Your task to perform on an android device: change timer sound Image 0: 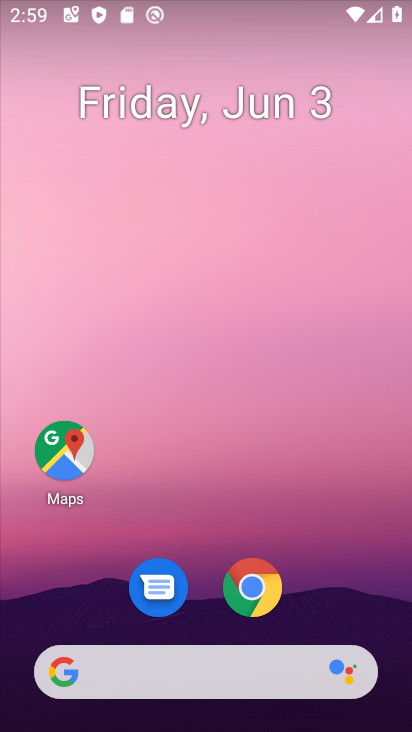
Step 0: drag from (238, 696) to (192, 13)
Your task to perform on an android device: change timer sound Image 1: 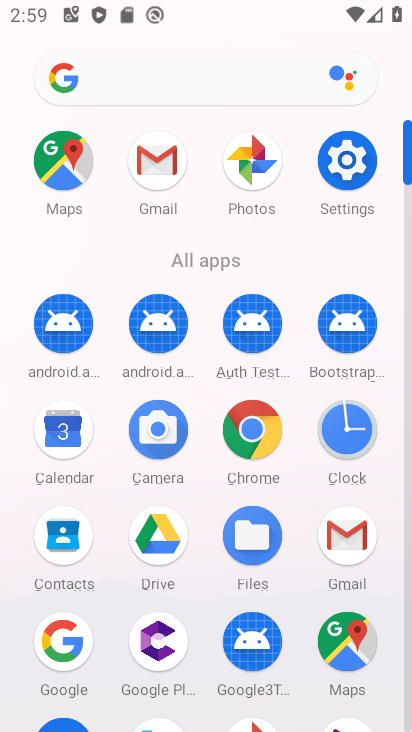
Step 1: click (344, 426)
Your task to perform on an android device: change timer sound Image 2: 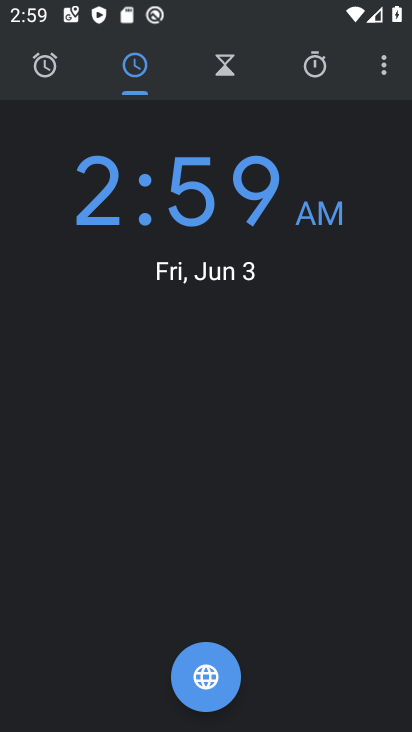
Step 2: click (384, 71)
Your task to perform on an android device: change timer sound Image 3: 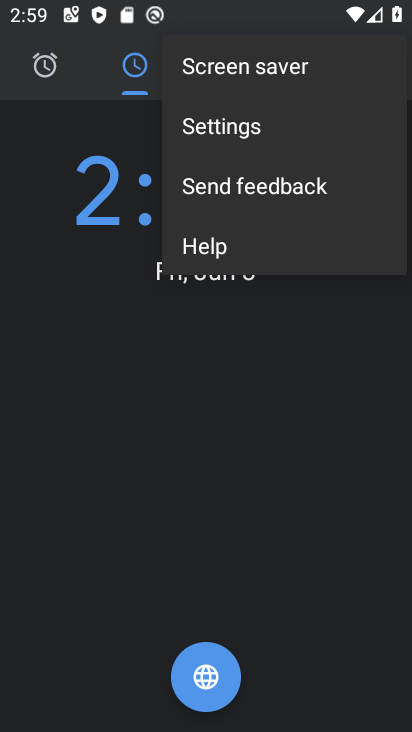
Step 3: click (221, 128)
Your task to perform on an android device: change timer sound Image 4: 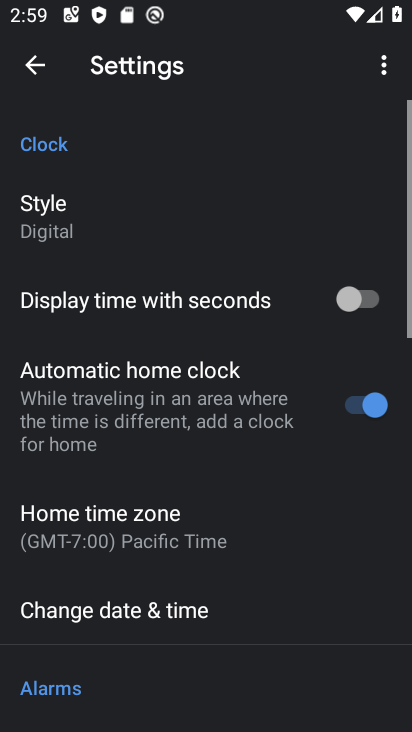
Step 4: drag from (167, 668) to (147, 315)
Your task to perform on an android device: change timer sound Image 5: 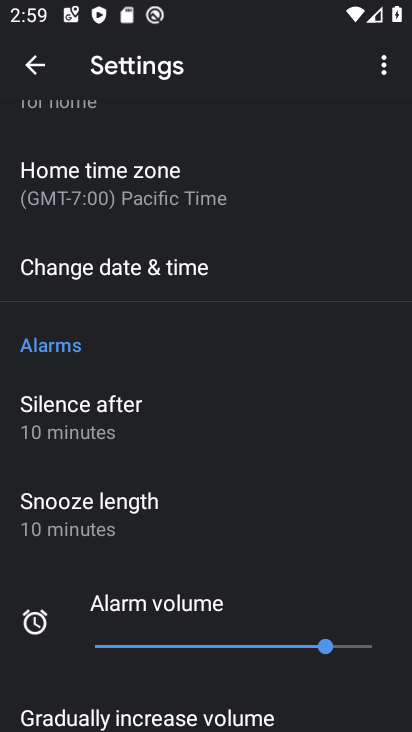
Step 5: drag from (158, 706) to (164, 237)
Your task to perform on an android device: change timer sound Image 6: 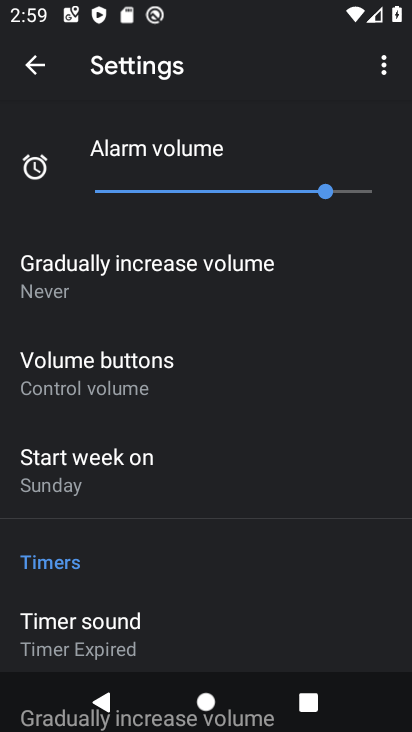
Step 6: click (94, 622)
Your task to perform on an android device: change timer sound Image 7: 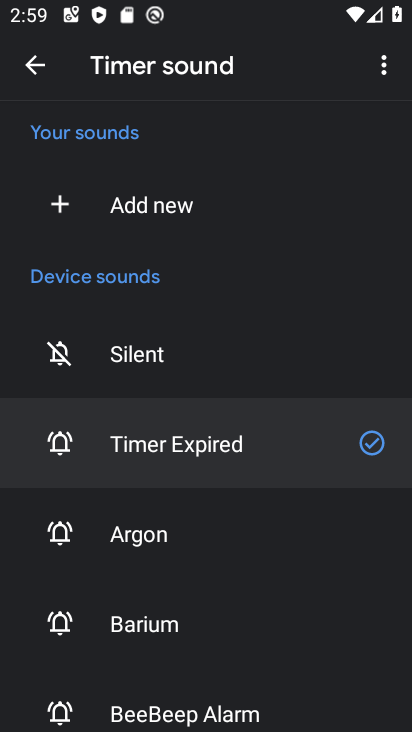
Step 7: click (127, 620)
Your task to perform on an android device: change timer sound Image 8: 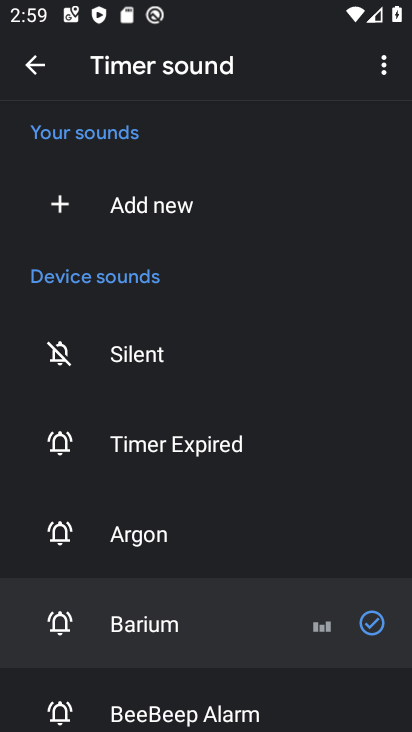
Step 8: task complete